Your task to perform on an android device: turn vacation reply on in the gmail app Image 0: 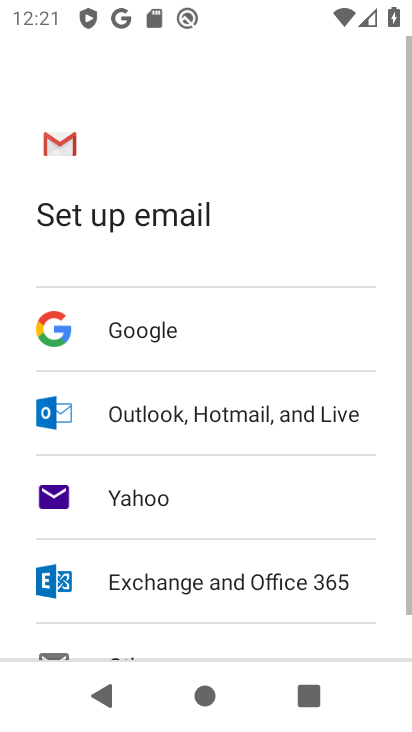
Step 0: press home button
Your task to perform on an android device: turn vacation reply on in the gmail app Image 1: 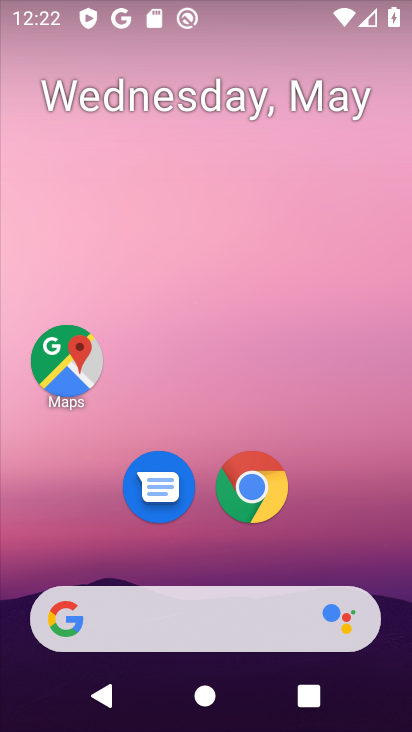
Step 1: drag from (217, 537) to (277, 2)
Your task to perform on an android device: turn vacation reply on in the gmail app Image 2: 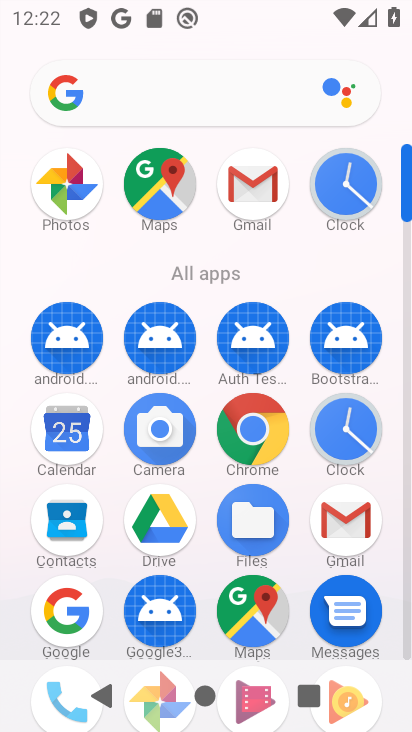
Step 2: click (346, 534)
Your task to perform on an android device: turn vacation reply on in the gmail app Image 3: 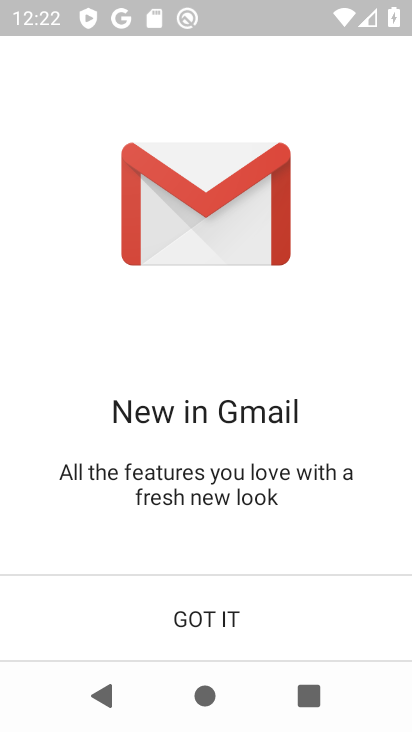
Step 3: click (254, 629)
Your task to perform on an android device: turn vacation reply on in the gmail app Image 4: 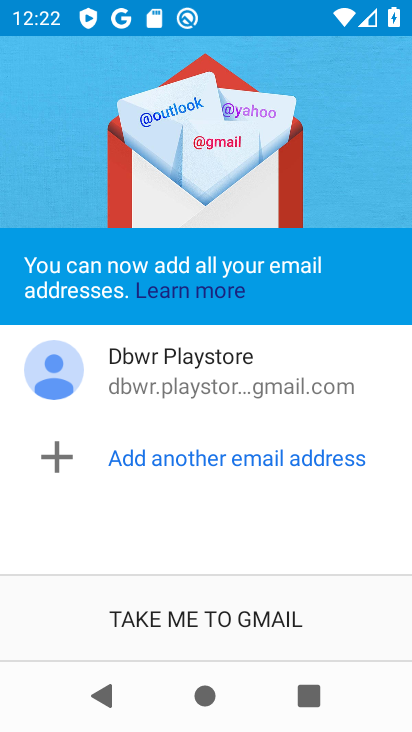
Step 4: click (257, 627)
Your task to perform on an android device: turn vacation reply on in the gmail app Image 5: 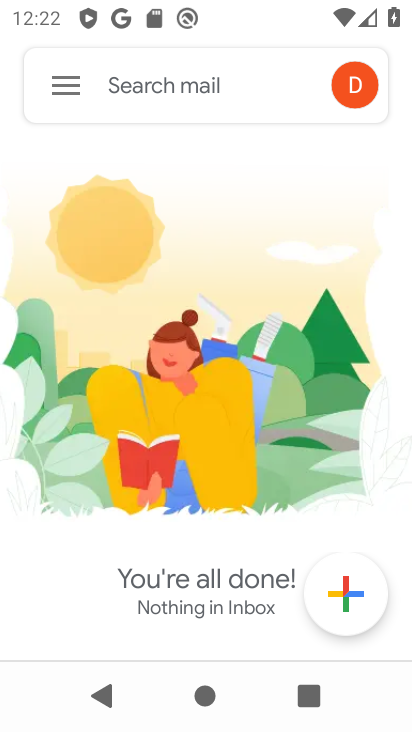
Step 5: click (77, 72)
Your task to perform on an android device: turn vacation reply on in the gmail app Image 6: 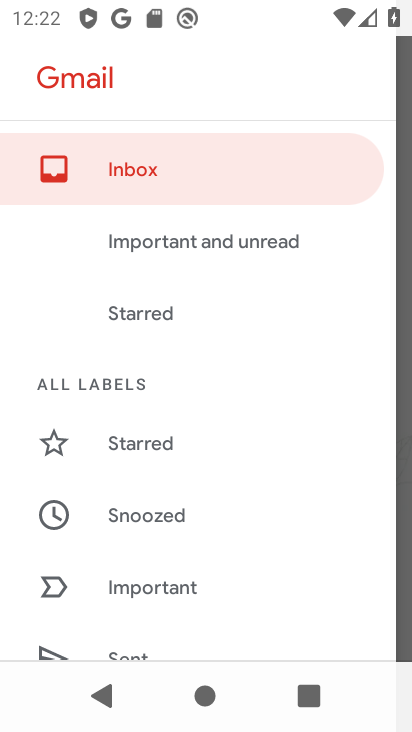
Step 6: drag from (165, 574) to (268, 152)
Your task to perform on an android device: turn vacation reply on in the gmail app Image 7: 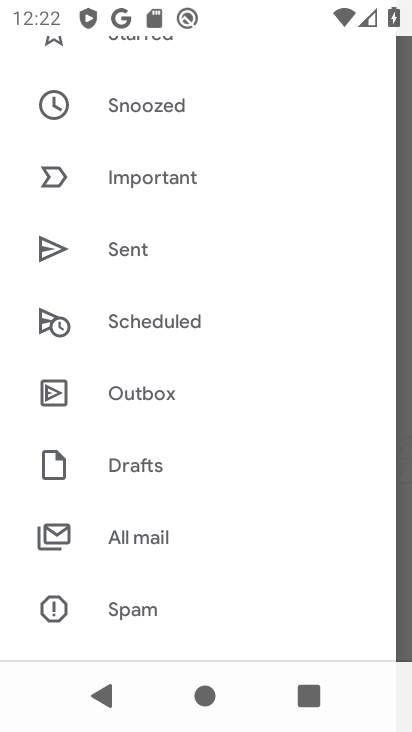
Step 7: drag from (160, 579) to (218, 202)
Your task to perform on an android device: turn vacation reply on in the gmail app Image 8: 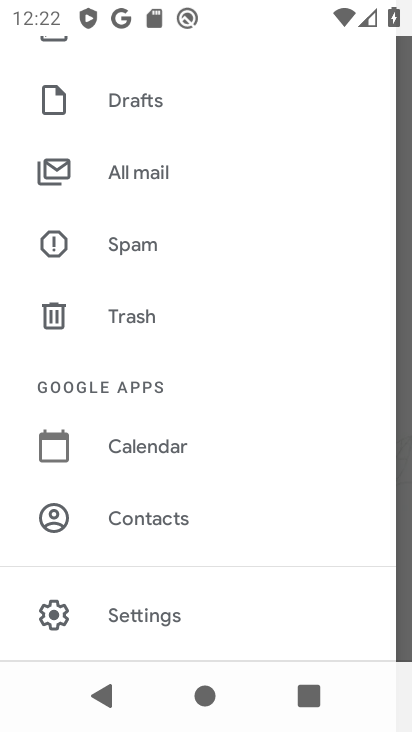
Step 8: click (142, 618)
Your task to perform on an android device: turn vacation reply on in the gmail app Image 9: 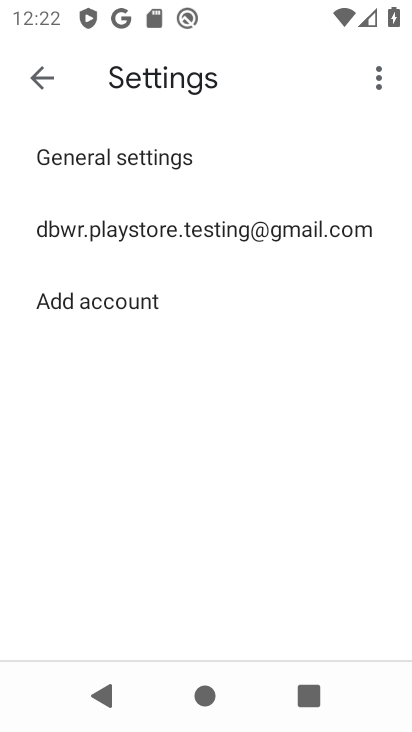
Step 9: click (168, 235)
Your task to perform on an android device: turn vacation reply on in the gmail app Image 10: 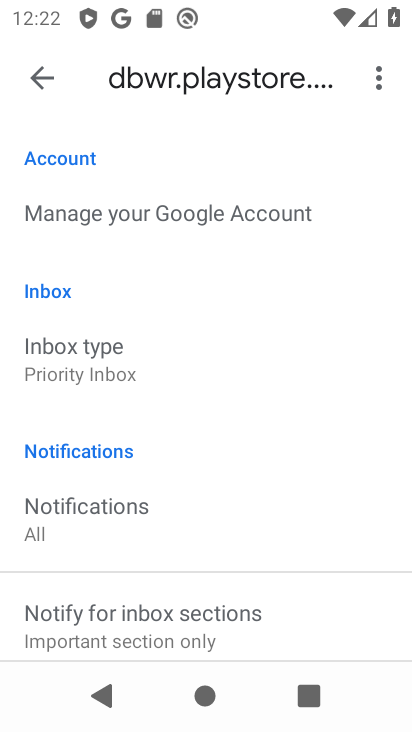
Step 10: drag from (154, 485) to (217, 134)
Your task to perform on an android device: turn vacation reply on in the gmail app Image 11: 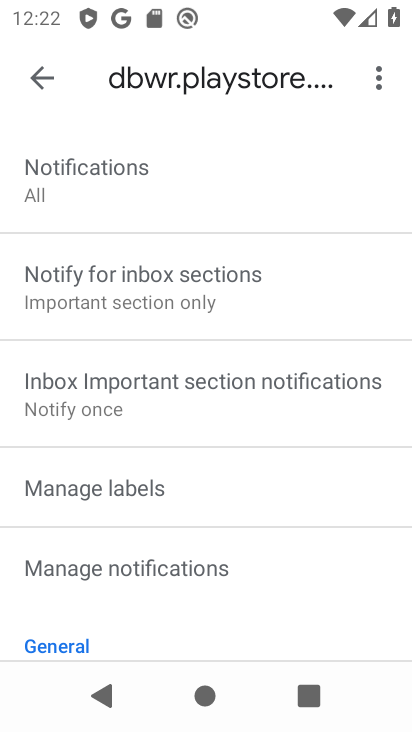
Step 11: drag from (178, 532) to (239, 134)
Your task to perform on an android device: turn vacation reply on in the gmail app Image 12: 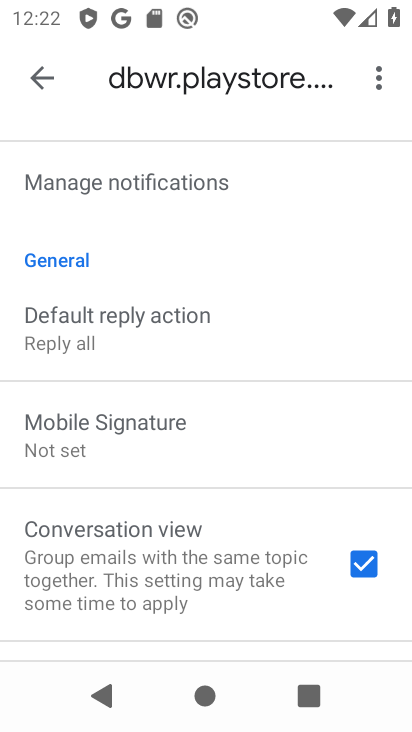
Step 12: drag from (157, 550) to (210, 183)
Your task to perform on an android device: turn vacation reply on in the gmail app Image 13: 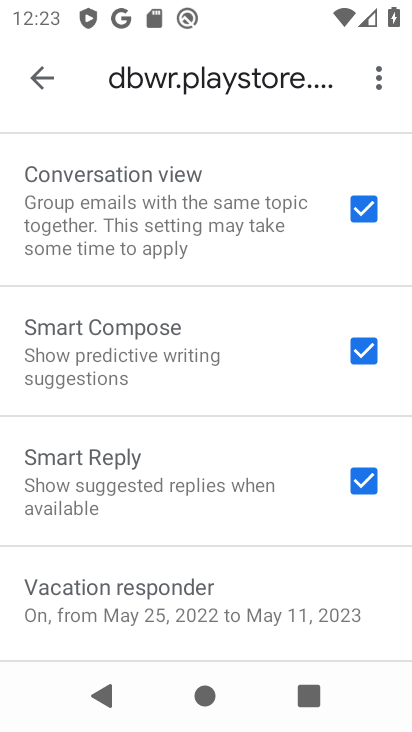
Step 13: click (156, 595)
Your task to perform on an android device: turn vacation reply on in the gmail app Image 14: 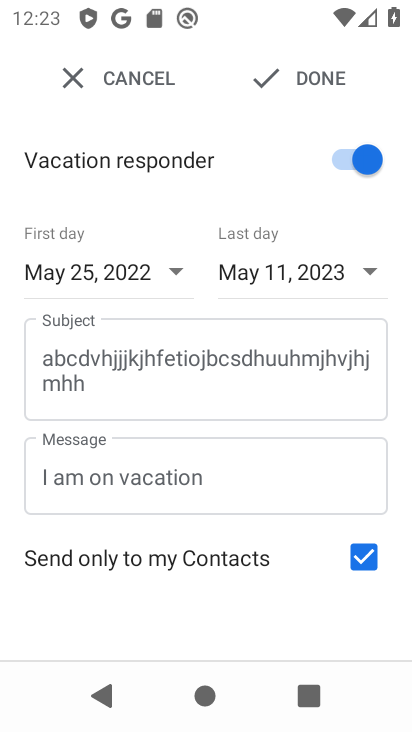
Step 14: task complete